Your task to perform on an android device: check android version Image 0: 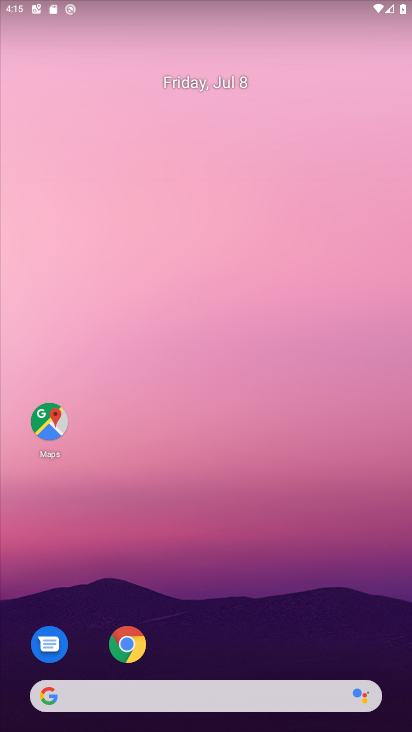
Step 0: drag from (317, 622) to (267, 114)
Your task to perform on an android device: check android version Image 1: 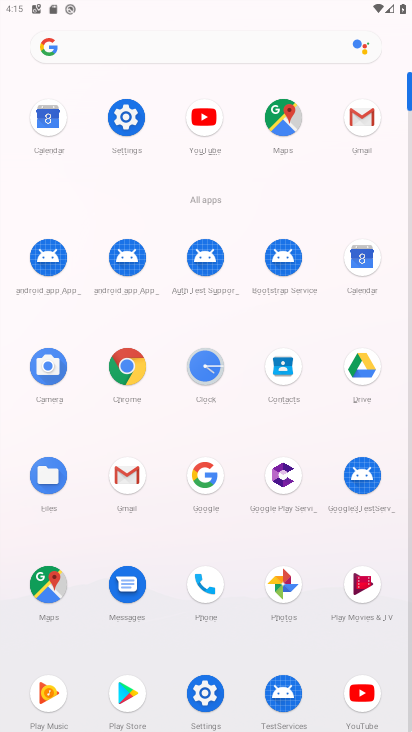
Step 1: click (204, 692)
Your task to perform on an android device: check android version Image 2: 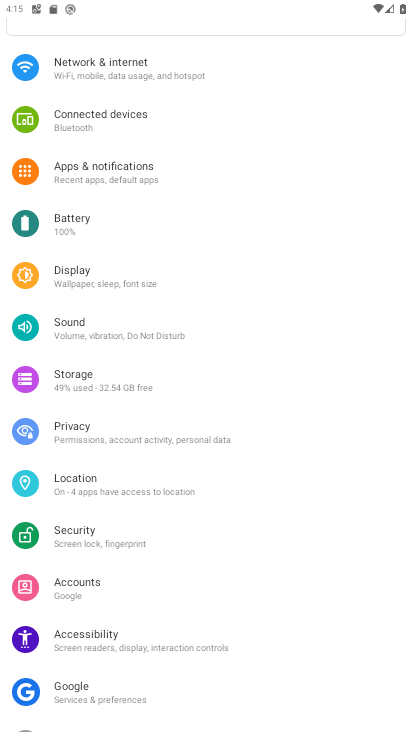
Step 2: drag from (245, 650) to (243, 352)
Your task to perform on an android device: check android version Image 3: 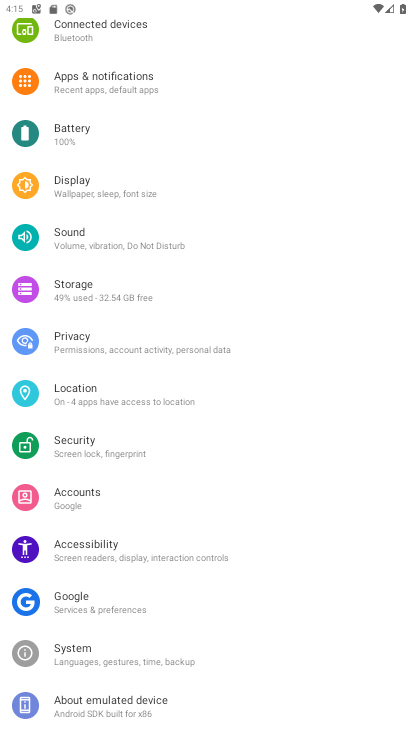
Step 3: click (78, 707)
Your task to perform on an android device: check android version Image 4: 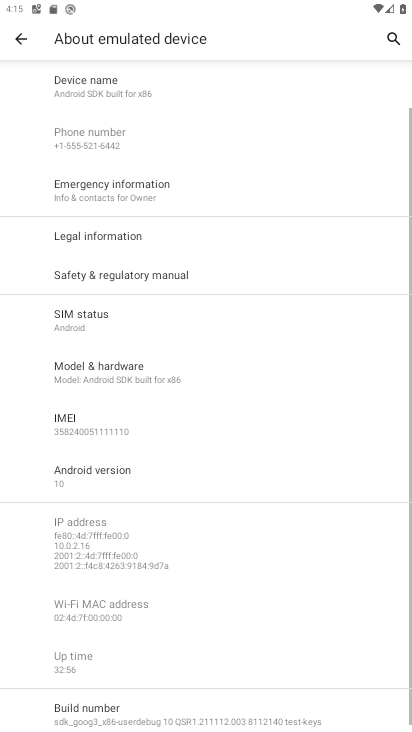
Step 4: click (75, 470)
Your task to perform on an android device: check android version Image 5: 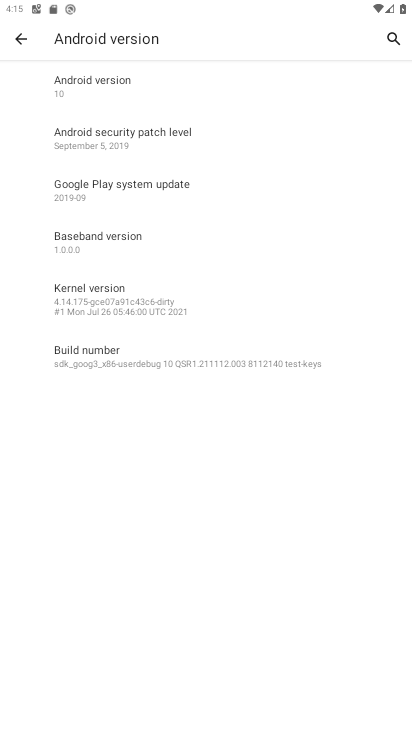
Step 5: task complete